Your task to perform on an android device: change notification settings in the gmail app Image 0: 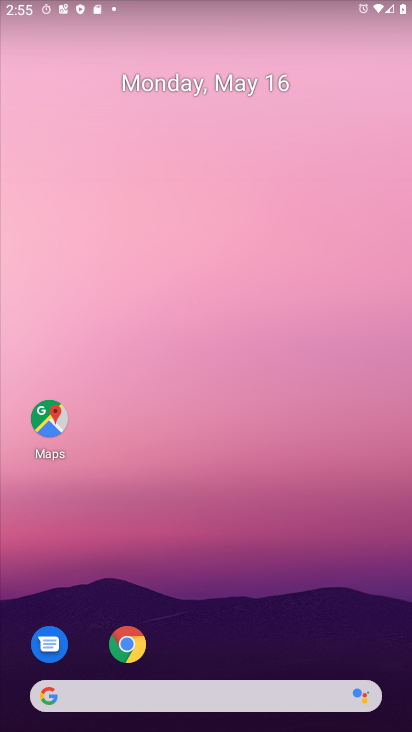
Step 0: drag from (189, 622) to (245, 123)
Your task to perform on an android device: change notification settings in the gmail app Image 1: 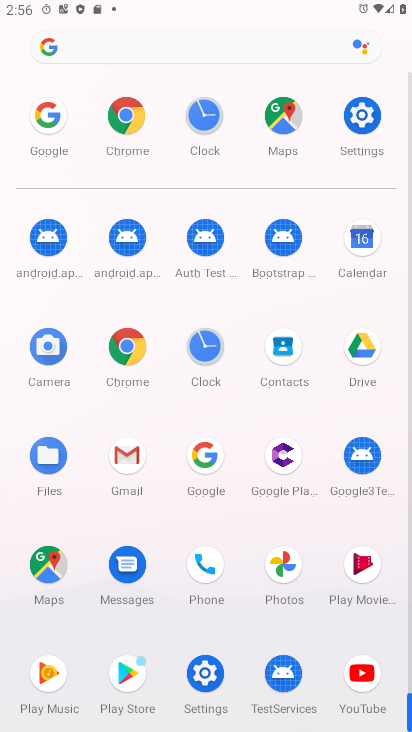
Step 1: click (122, 452)
Your task to perform on an android device: change notification settings in the gmail app Image 2: 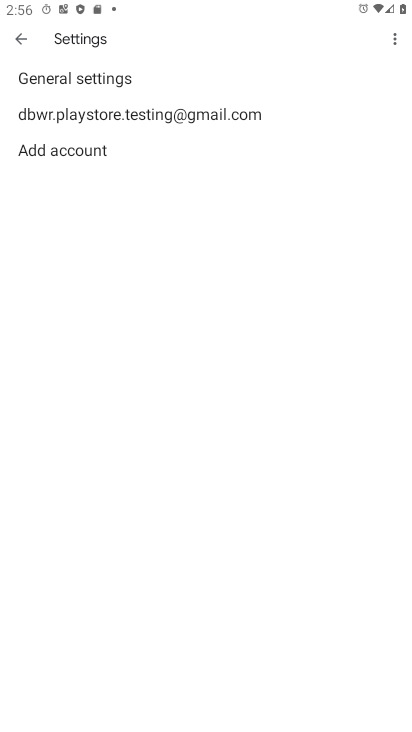
Step 2: click (165, 71)
Your task to perform on an android device: change notification settings in the gmail app Image 3: 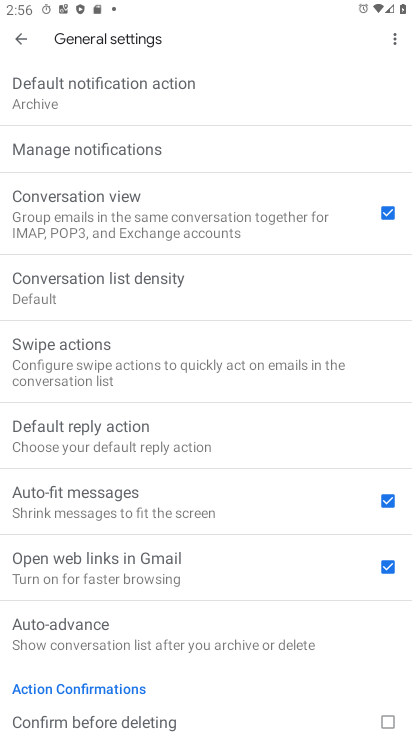
Step 3: click (171, 142)
Your task to perform on an android device: change notification settings in the gmail app Image 4: 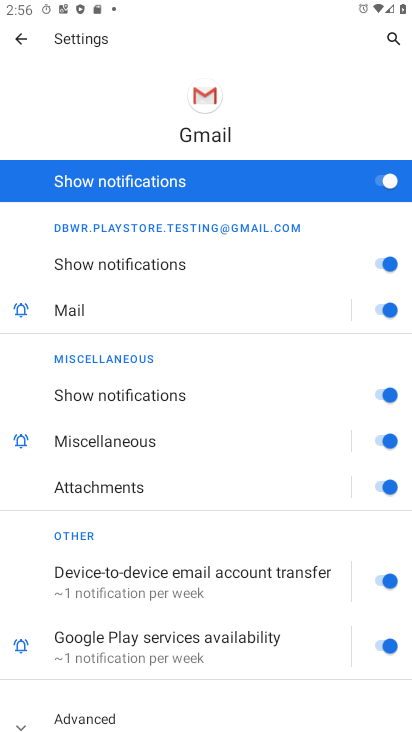
Step 4: drag from (198, 554) to (221, 133)
Your task to perform on an android device: change notification settings in the gmail app Image 5: 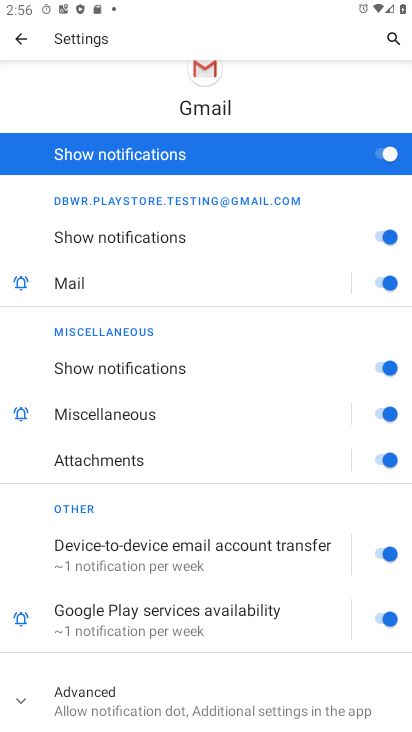
Step 5: click (378, 159)
Your task to perform on an android device: change notification settings in the gmail app Image 6: 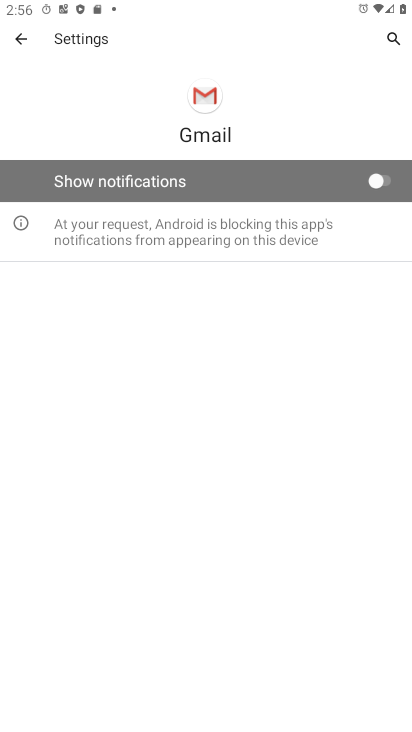
Step 6: task complete